Your task to perform on an android device: Open Chrome and go to settings Image 0: 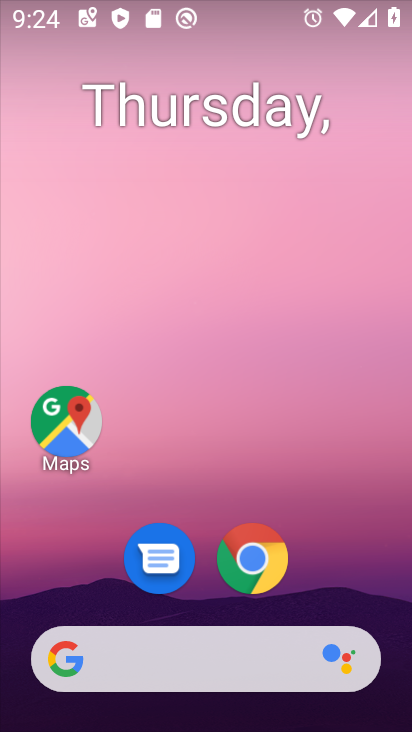
Step 0: click (251, 566)
Your task to perform on an android device: Open Chrome and go to settings Image 1: 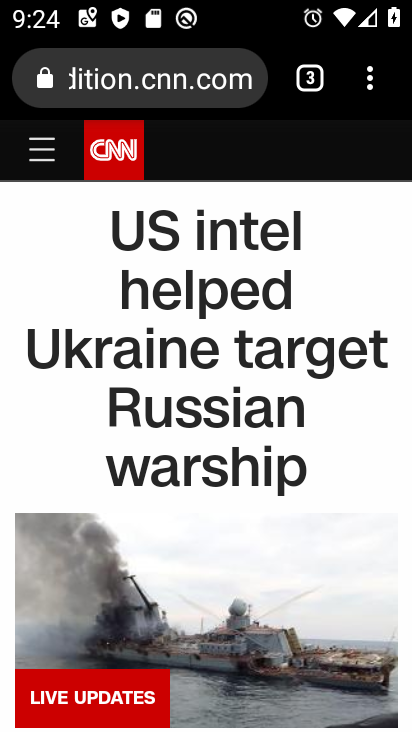
Step 1: click (369, 85)
Your task to perform on an android device: Open Chrome and go to settings Image 2: 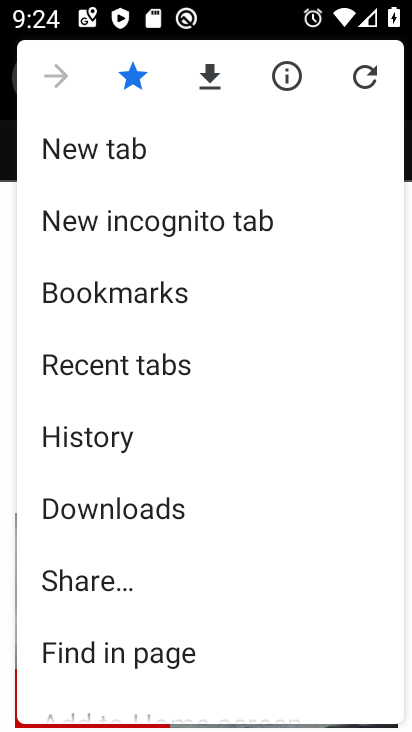
Step 2: drag from (232, 593) to (298, 261)
Your task to perform on an android device: Open Chrome and go to settings Image 3: 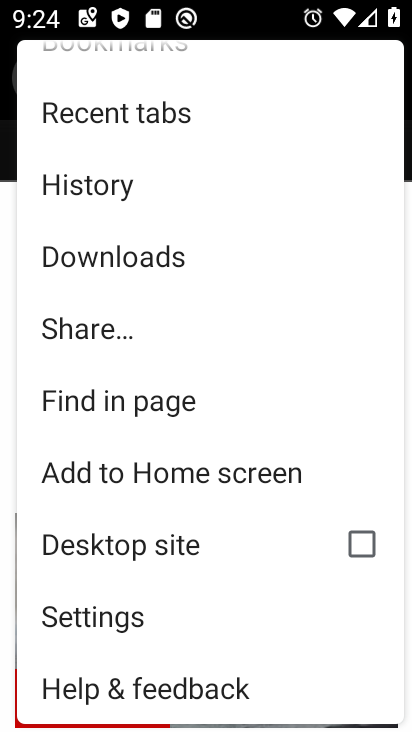
Step 3: click (92, 617)
Your task to perform on an android device: Open Chrome and go to settings Image 4: 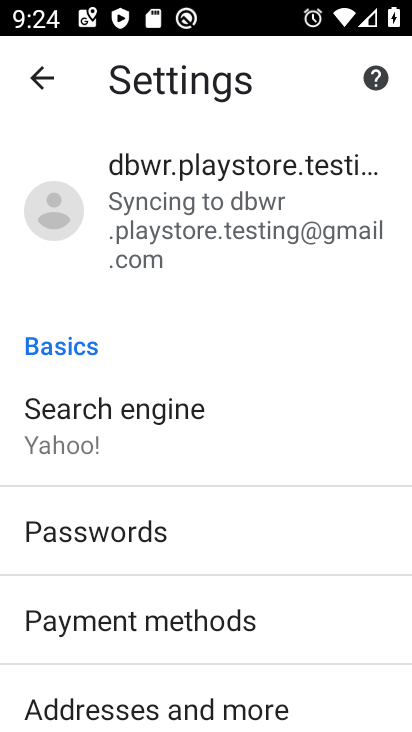
Step 4: task complete